Your task to perform on an android device: Open eBay Image 0: 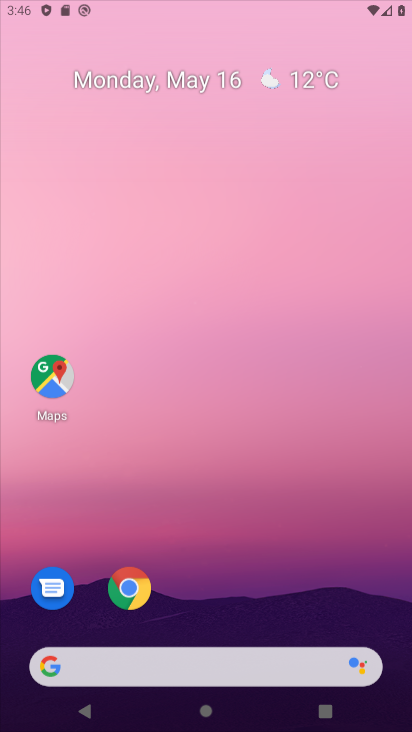
Step 0: click (130, 598)
Your task to perform on an android device: Open eBay Image 1: 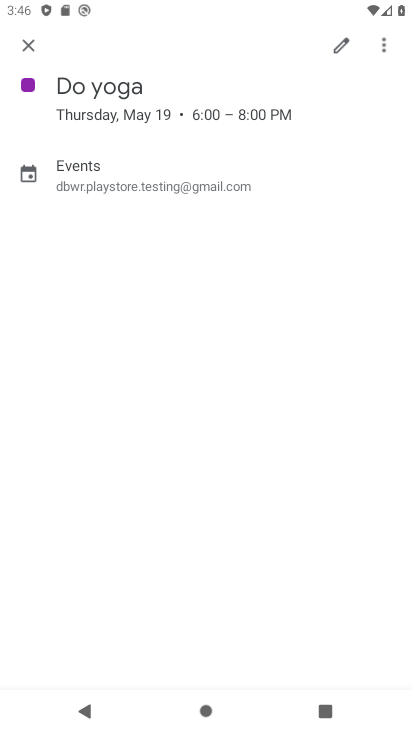
Step 1: press home button
Your task to perform on an android device: Open eBay Image 2: 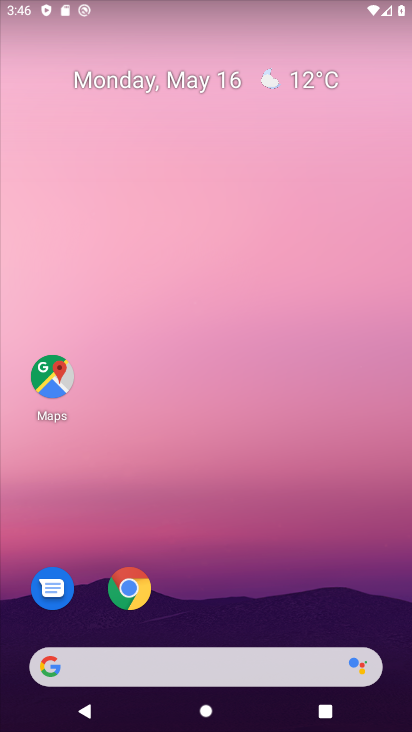
Step 2: click (133, 588)
Your task to perform on an android device: Open eBay Image 3: 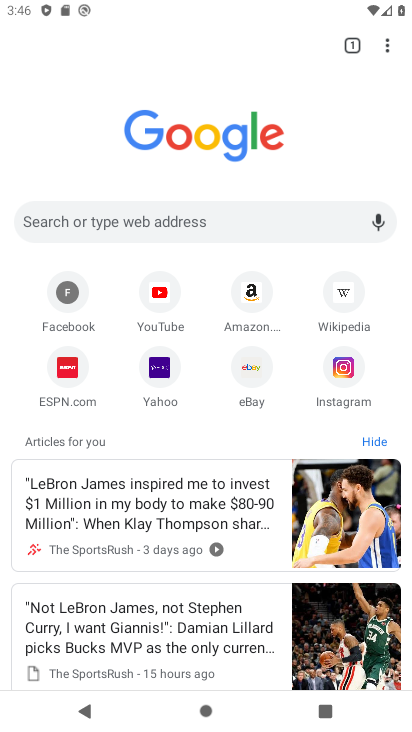
Step 3: click (253, 376)
Your task to perform on an android device: Open eBay Image 4: 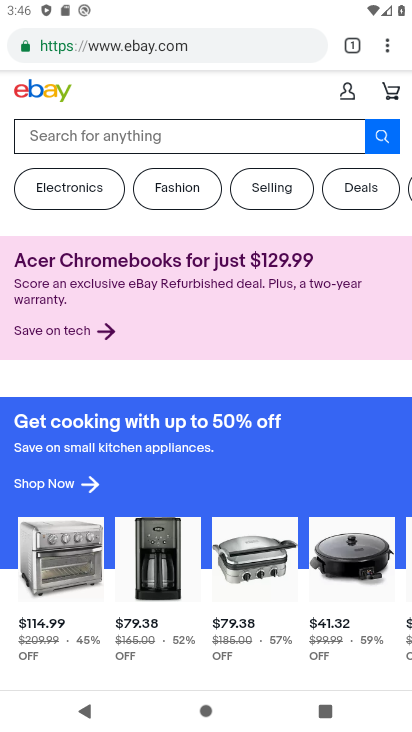
Step 4: task complete